Your task to perform on an android device: delete the emails in spam in the gmail app Image 0: 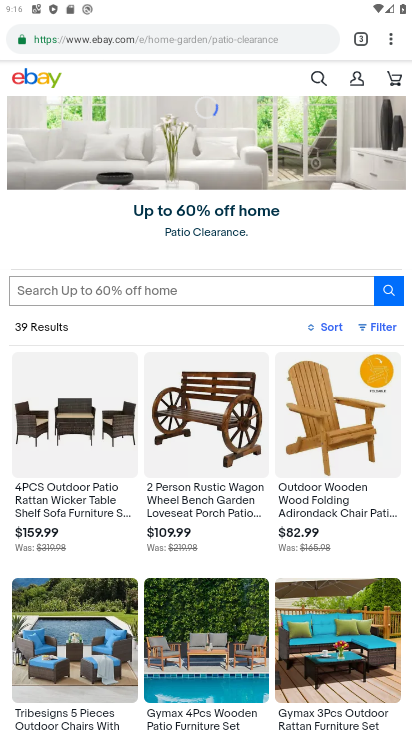
Step 0: drag from (171, 466) to (271, 75)
Your task to perform on an android device: delete the emails in spam in the gmail app Image 1: 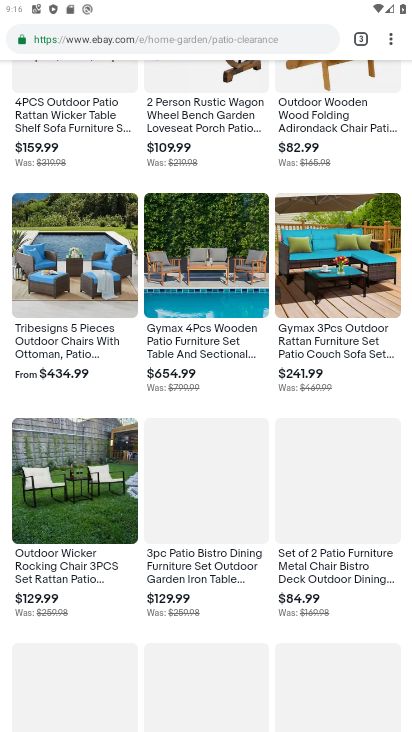
Step 1: press home button
Your task to perform on an android device: delete the emails in spam in the gmail app Image 2: 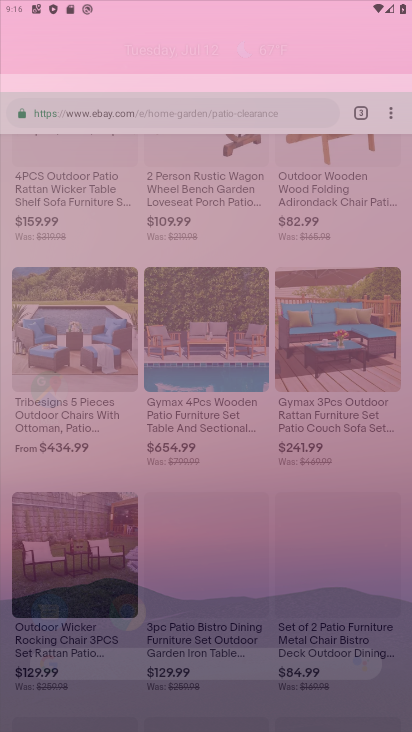
Step 2: drag from (237, 464) to (266, 99)
Your task to perform on an android device: delete the emails in spam in the gmail app Image 3: 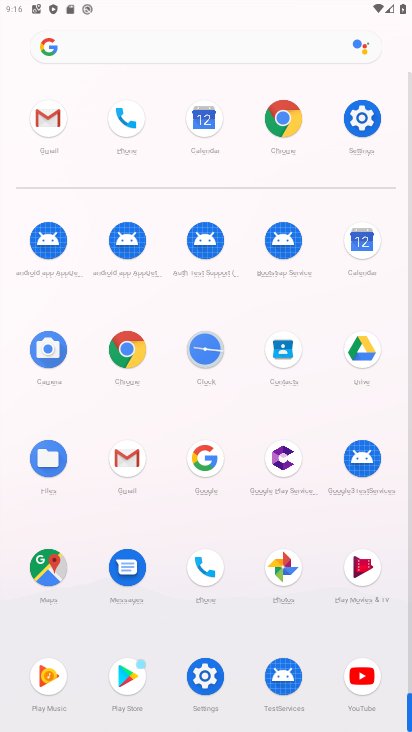
Step 3: click (132, 453)
Your task to perform on an android device: delete the emails in spam in the gmail app Image 4: 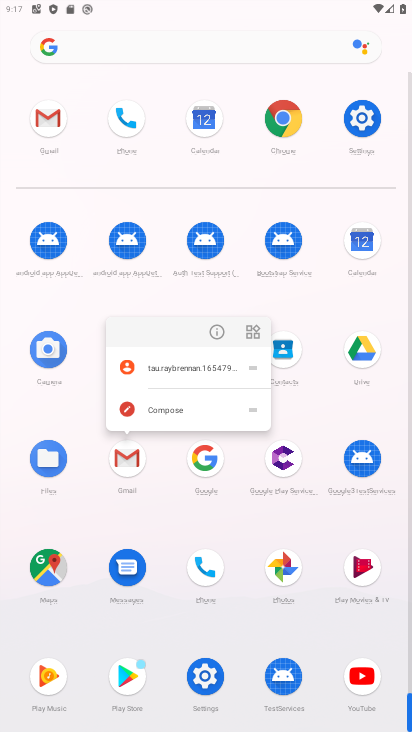
Step 4: click (217, 330)
Your task to perform on an android device: delete the emails in spam in the gmail app Image 5: 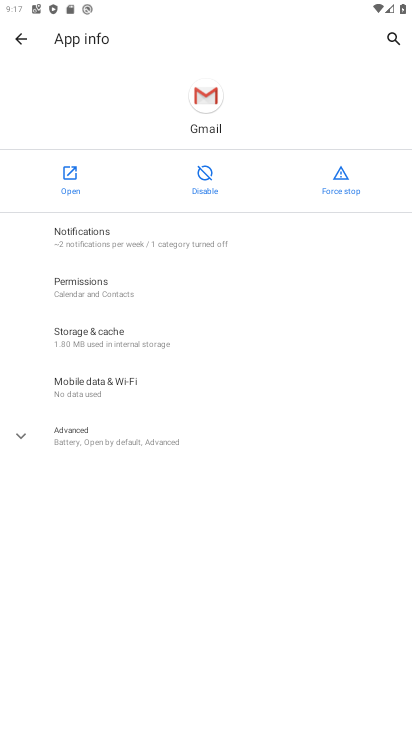
Step 5: click (57, 180)
Your task to perform on an android device: delete the emails in spam in the gmail app Image 6: 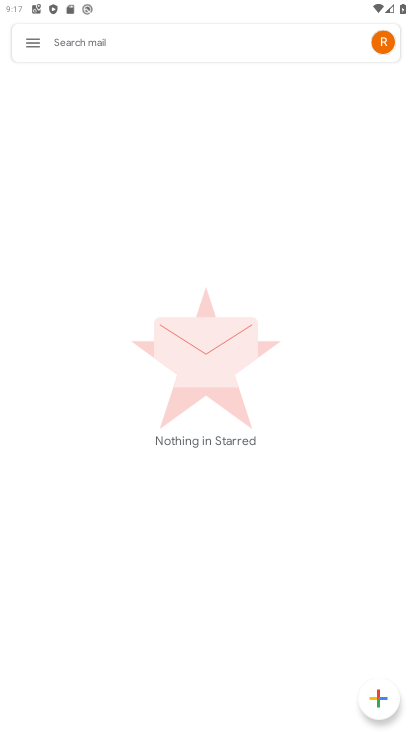
Step 6: click (206, 530)
Your task to perform on an android device: delete the emails in spam in the gmail app Image 7: 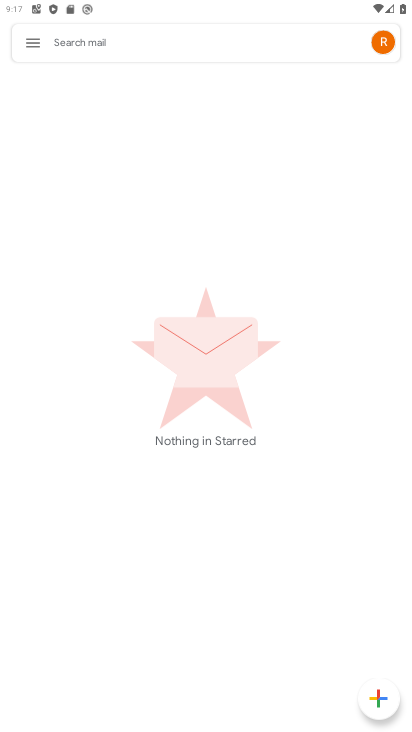
Step 7: drag from (251, 560) to (250, 303)
Your task to perform on an android device: delete the emails in spam in the gmail app Image 8: 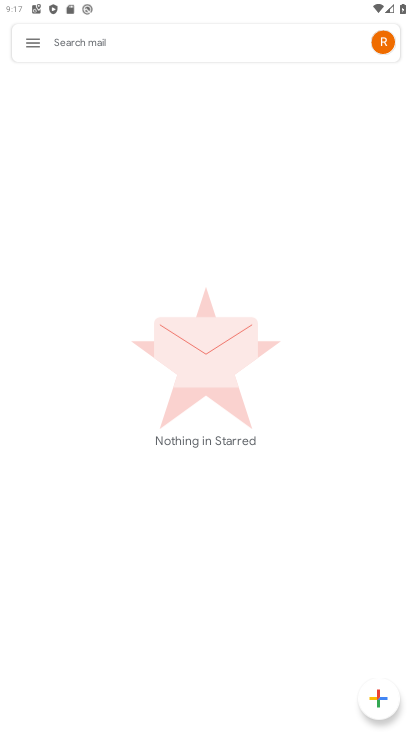
Step 8: drag from (253, 449) to (267, 383)
Your task to perform on an android device: delete the emails in spam in the gmail app Image 9: 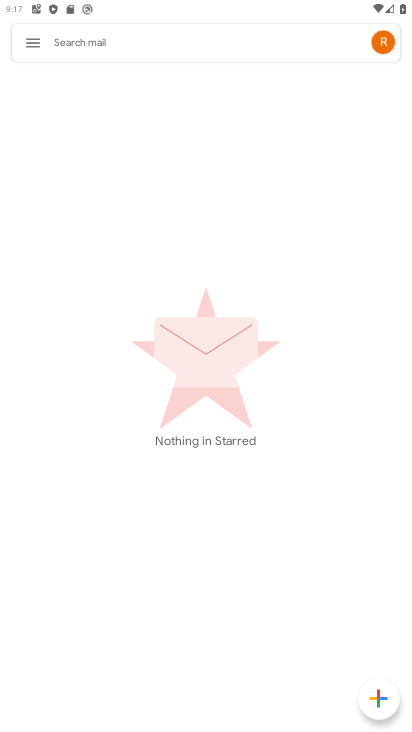
Step 9: click (33, 40)
Your task to perform on an android device: delete the emails in spam in the gmail app Image 10: 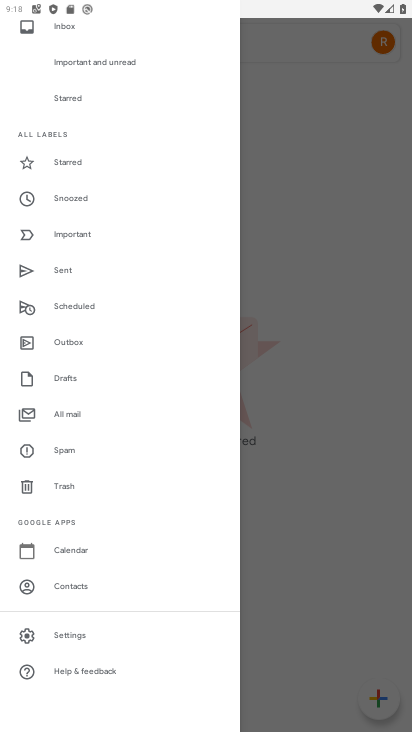
Step 10: click (62, 449)
Your task to perform on an android device: delete the emails in spam in the gmail app Image 11: 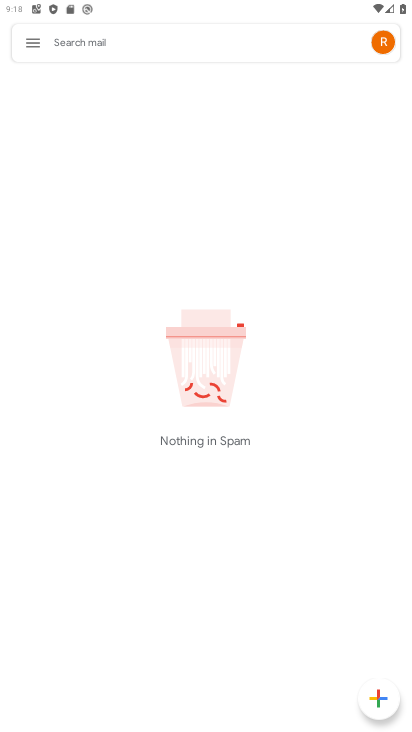
Step 11: drag from (226, 535) to (295, 328)
Your task to perform on an android device: delete the emails in spam in the gmail app Image 12: 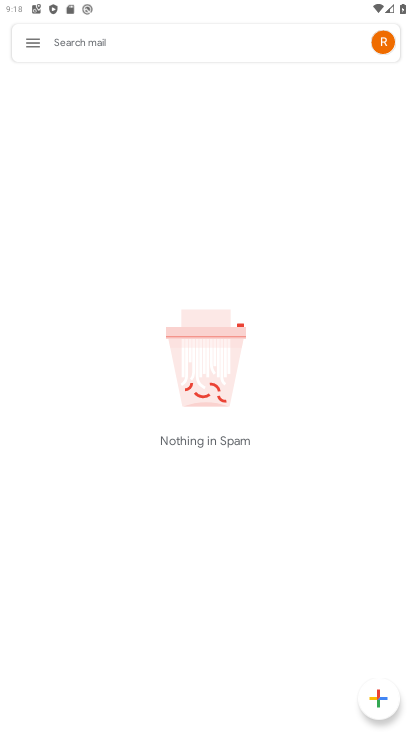
Step 12: click (36, 42)
Your task to perform on an android device: delete the emails in spam in the gmail app Image 13: 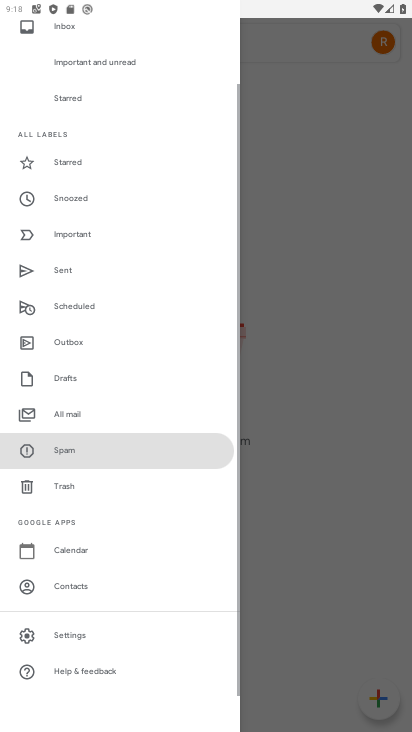
Step 13: click (297, 204)
Your task to perform on an android device: delete the emails in spam in the gmail app Image 14: 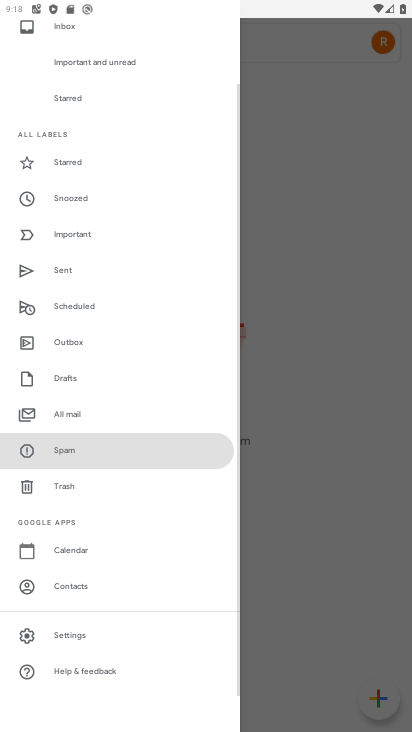
Step 14: click (297, 204)
Your task to perform on an android device: delete the emails in spam in the gmail app Image 15: 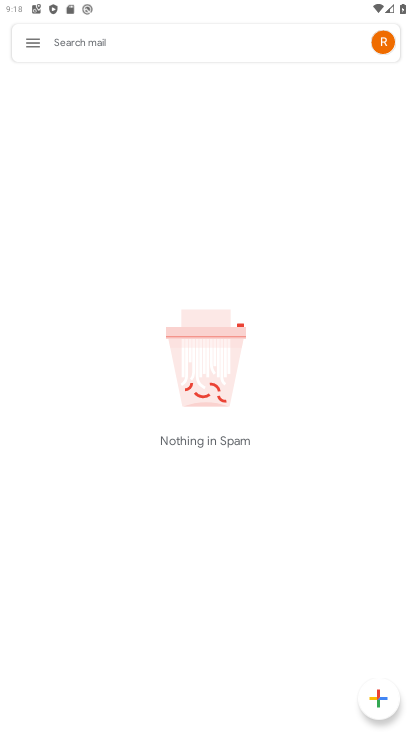
Step 15: task complete